Your task to perform on an android device: Go to Reddit.com Image 0: 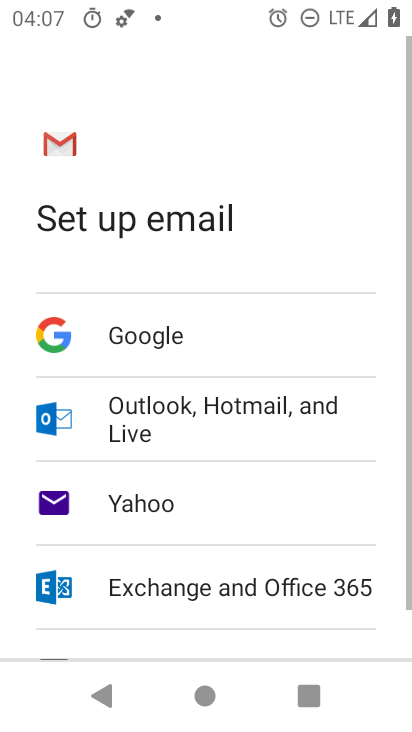
Step 0: press home button
Your task to perform on an android device: Go to Reddit.com Image 1: 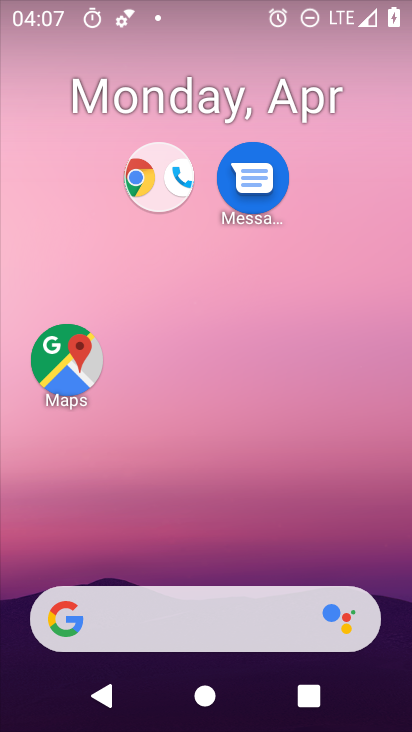
Step 1: drag from (237, 614) to (384, 10)
Your task to perform on an android device: Go to Reddit.com Image 2: 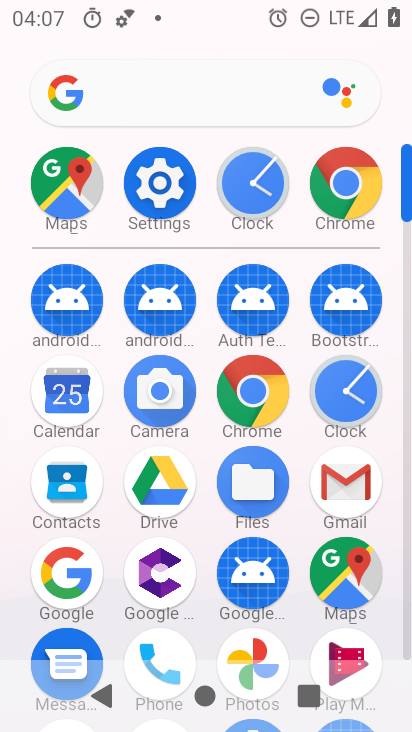
Step 2: click (254, 394)
Your task to perform on an android device: Go to Reddit.com Image 3: 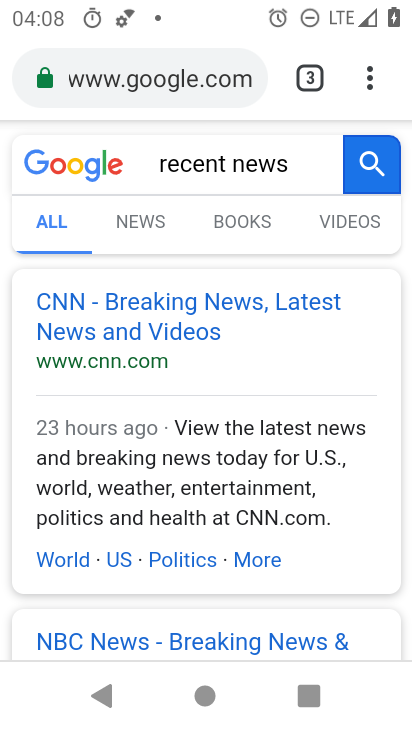
Step 3: click (236, 82)
Your task to perform on an android device: Go to Reddit.com Image 4: 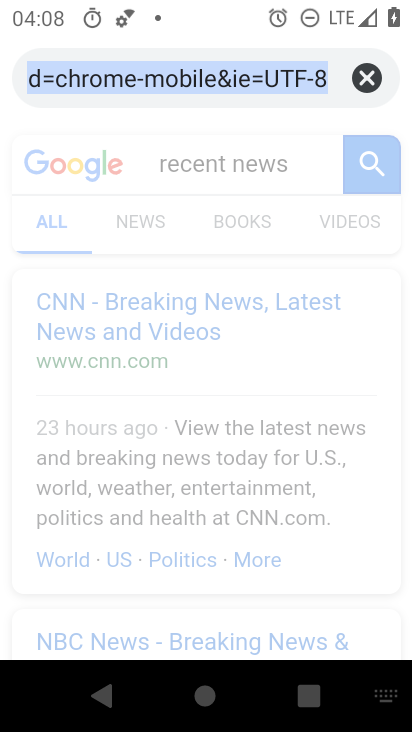
Step 4: click (367, 74)
Your task to perform on an android device: Go to Reddit.com Image 5: 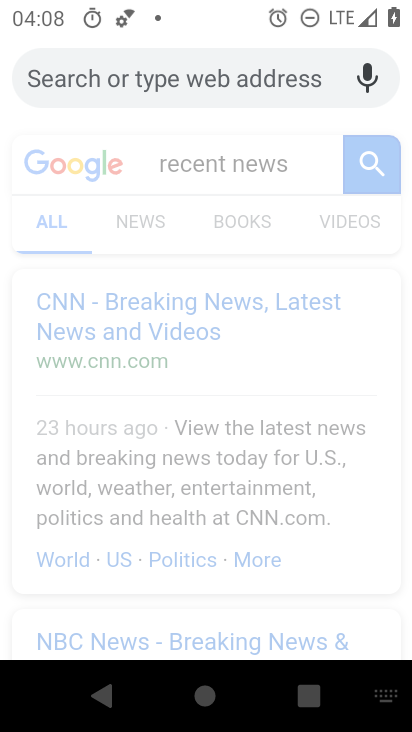
Step 5: type "reddit.com"
Your task to perform on an android device: Go to Reddit.com Image 6: 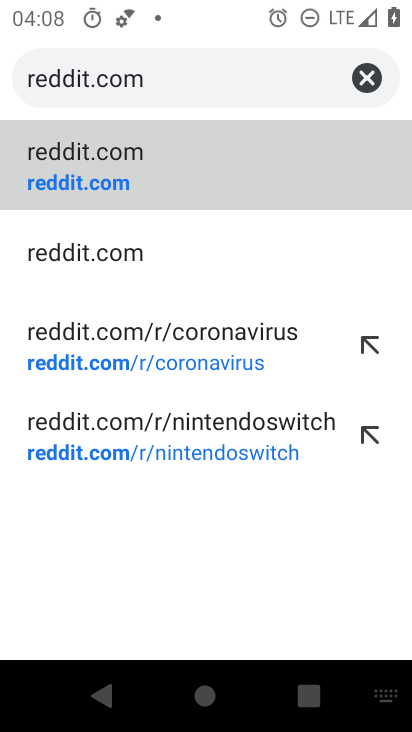
Step 6: click (45, 148)
Your task to perform on an android device: Go to Reddit.com Image 7: 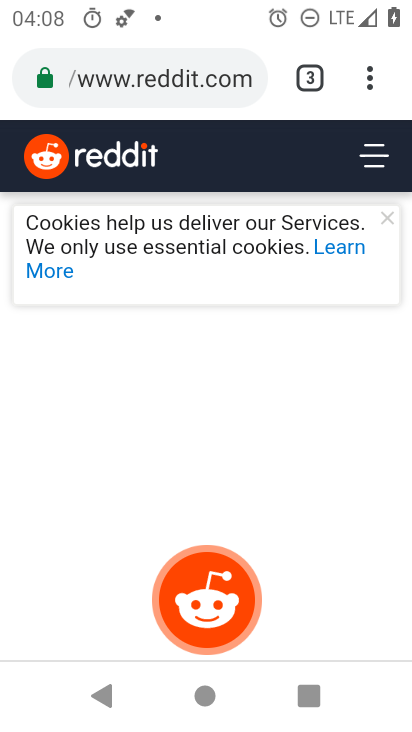
Step 7: task complete